Your task to perform on an android device: Open calendar and show me the first week of next month Image 0: 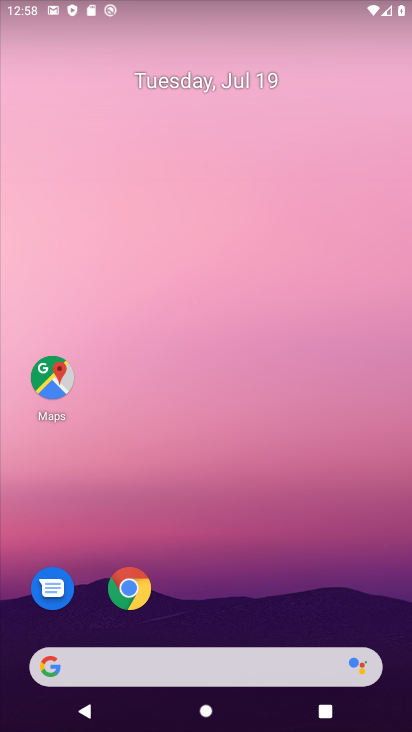
Step 0: drag from (25, 682) to (232, 99)
Your task to perform on an android device: Open calendar and show me the first week of next month Image 1: 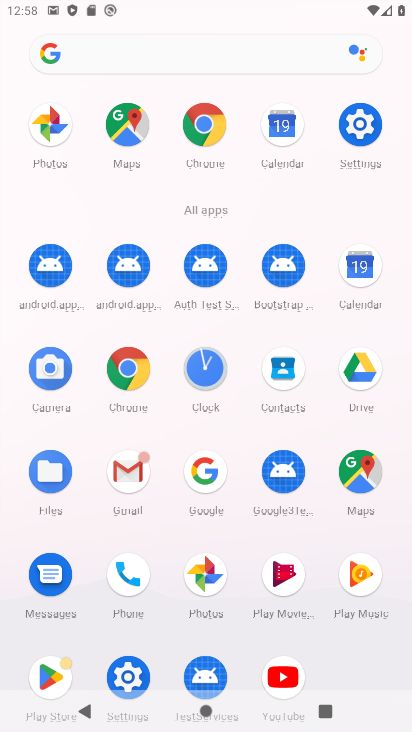
Step 1: drag from (21, 703) to (306, 35)
Your task to perform on an android device: Open calendar and show me the first week of next month Image 2: 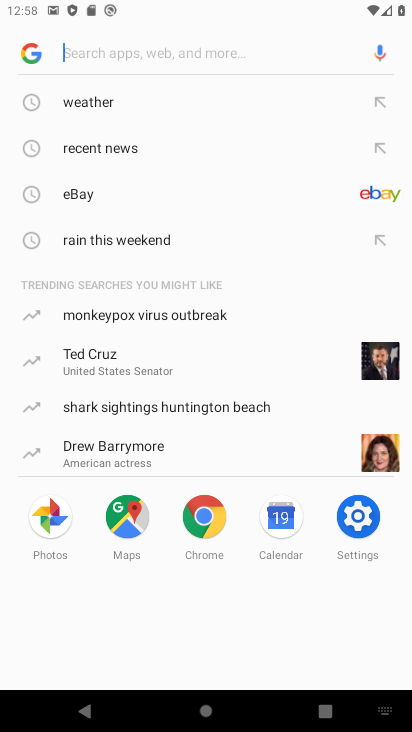
Step 2: click (360, 274)
Your task to perform on an android device: Open calendar and show me the first week of next month Image 3: 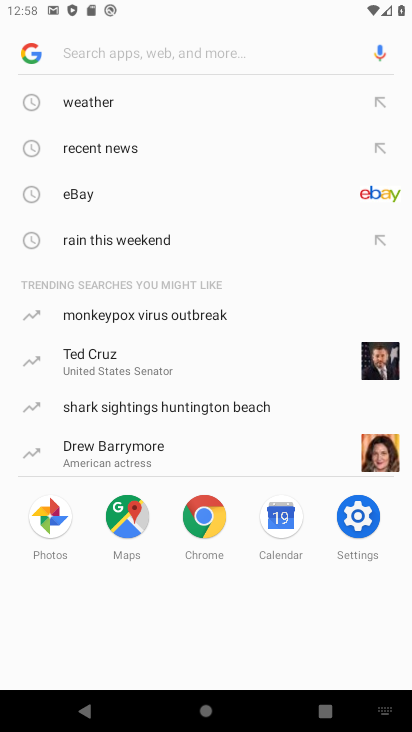
Step 3: press home button
Your task to perform on an android device: Open calendar and show me the first week of next month Image 4: 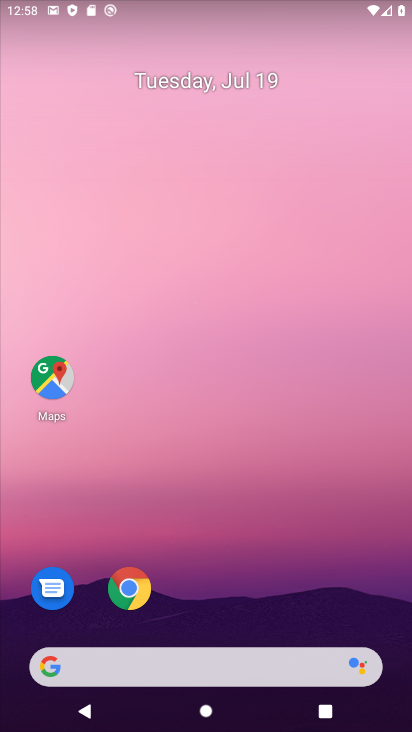
Step 4: drag from (19, 713) to (232, 90)
Your task to perform on an android device: Open calendar and show me the first week of next month Image 5: 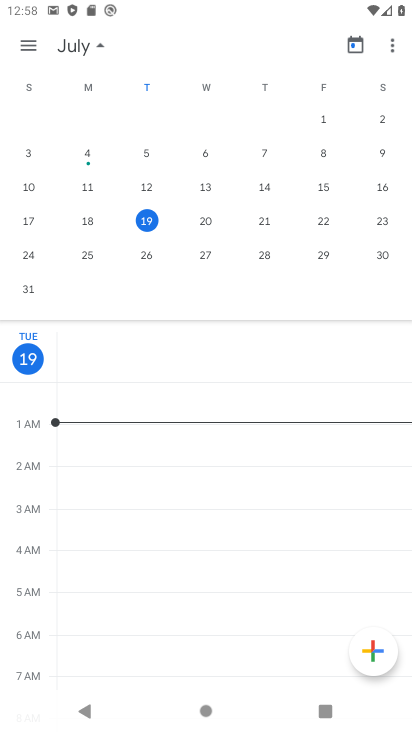
Step 5: click (79, 47)
Your task to perform on an android device: Open calendar and show me the first week of next month Image 6: 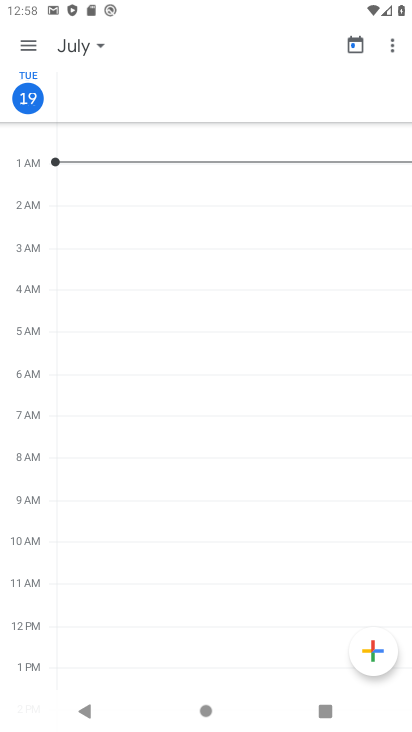
Step 6: click (81, 49)
Your task to perform on an android device: Open calendar and show me the first week of next month Image 7: 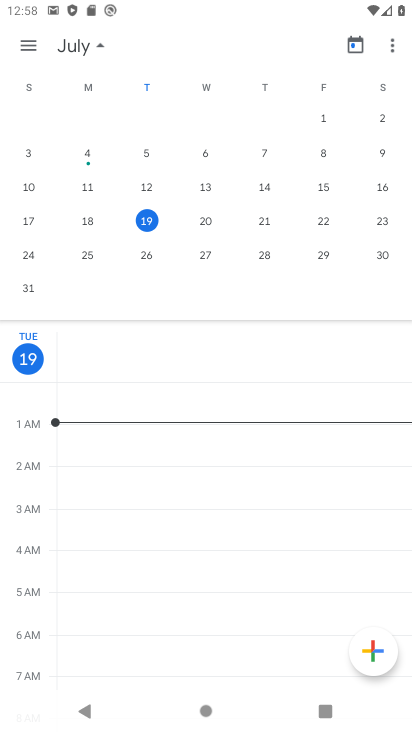
Step 7: drag from (397, 140) to (120, 131)
Your task to perform on an android device: Open calendar and show me the first week of next month Image 8: 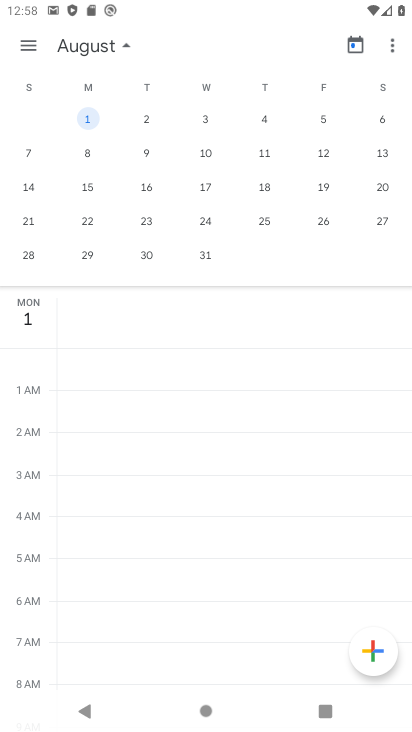
Step 8: click (89, 119)
Your task to perform on an android device: Open calendar and show me the first week of next month Image 9: 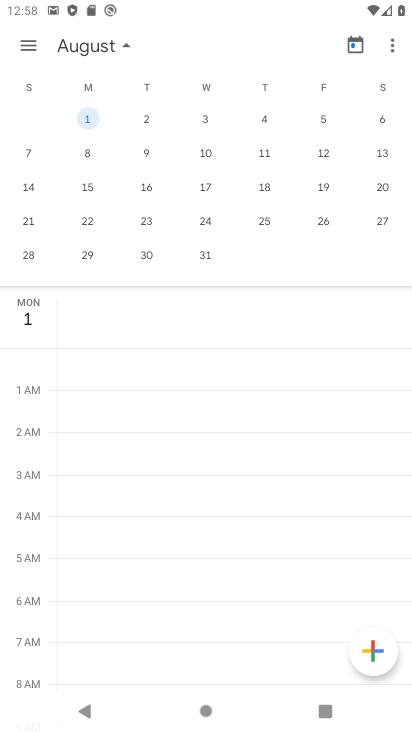
Step 9: task complete